Your task to perform on an android device: Go to privacy settings Image 0: 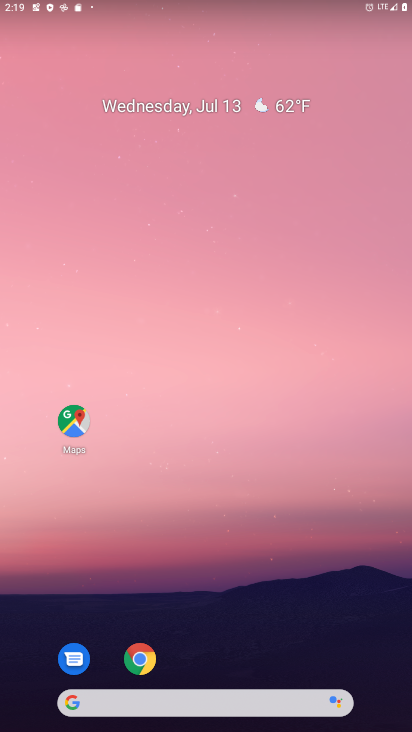
Step 0: drag from (210, 717) to (210, 121)
Your task to perform on an android device: Go to privacy settings Image 1: 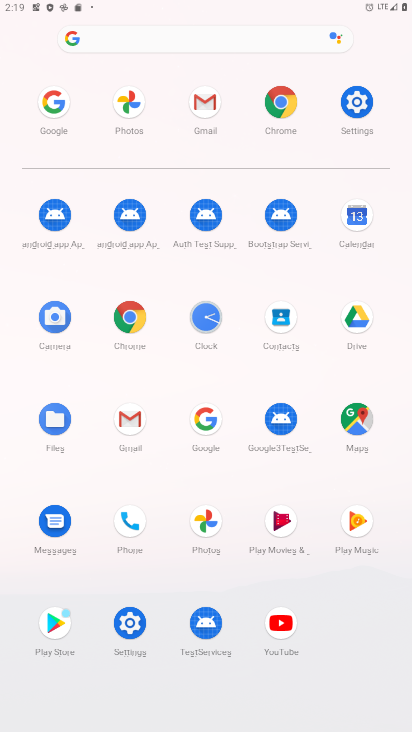
Step 1: click (358, 104)
Your task to perform on an android device: Go to privacy settings Image 2: 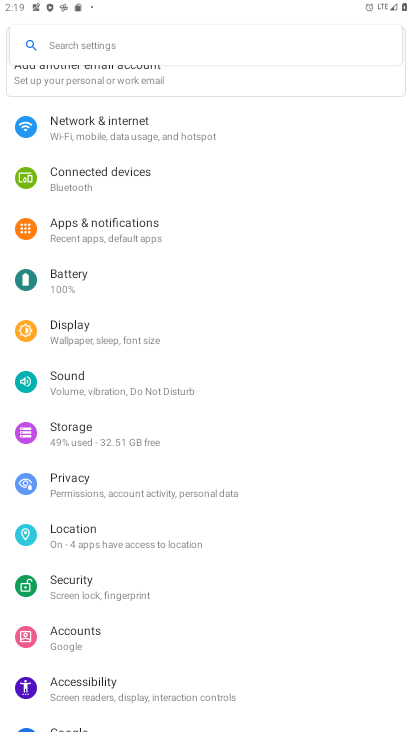
Step 2: click (83, 484)
Your task to perform on an android device: Go to privacy settings Image 3: 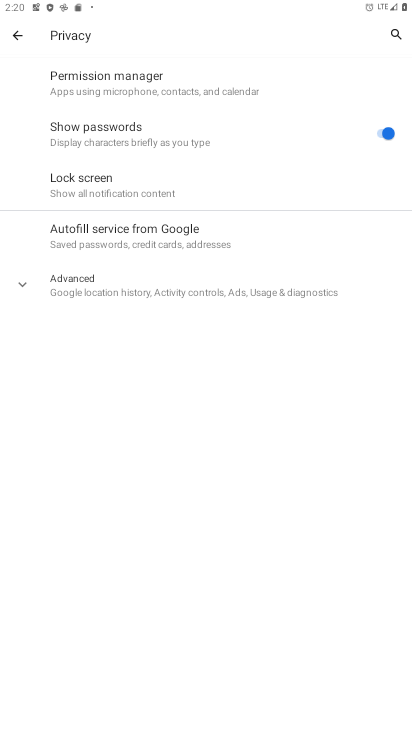
Step 3: task complete